Your task to perform on an android device: Add bose soundlink mini to the cart on target Image 0: 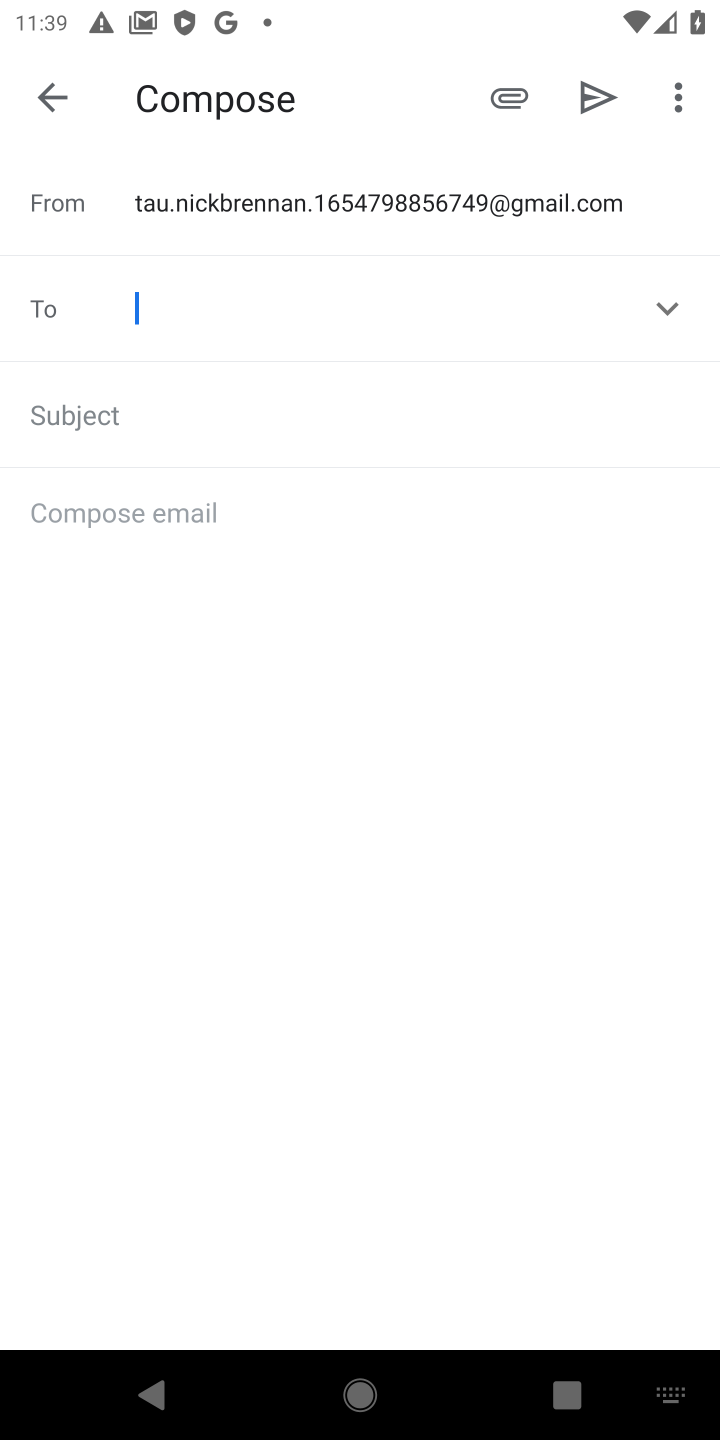
Step 0: press home button
Your task to perform on an android device: Add bose soundlink mini to the cart on target Image 1: 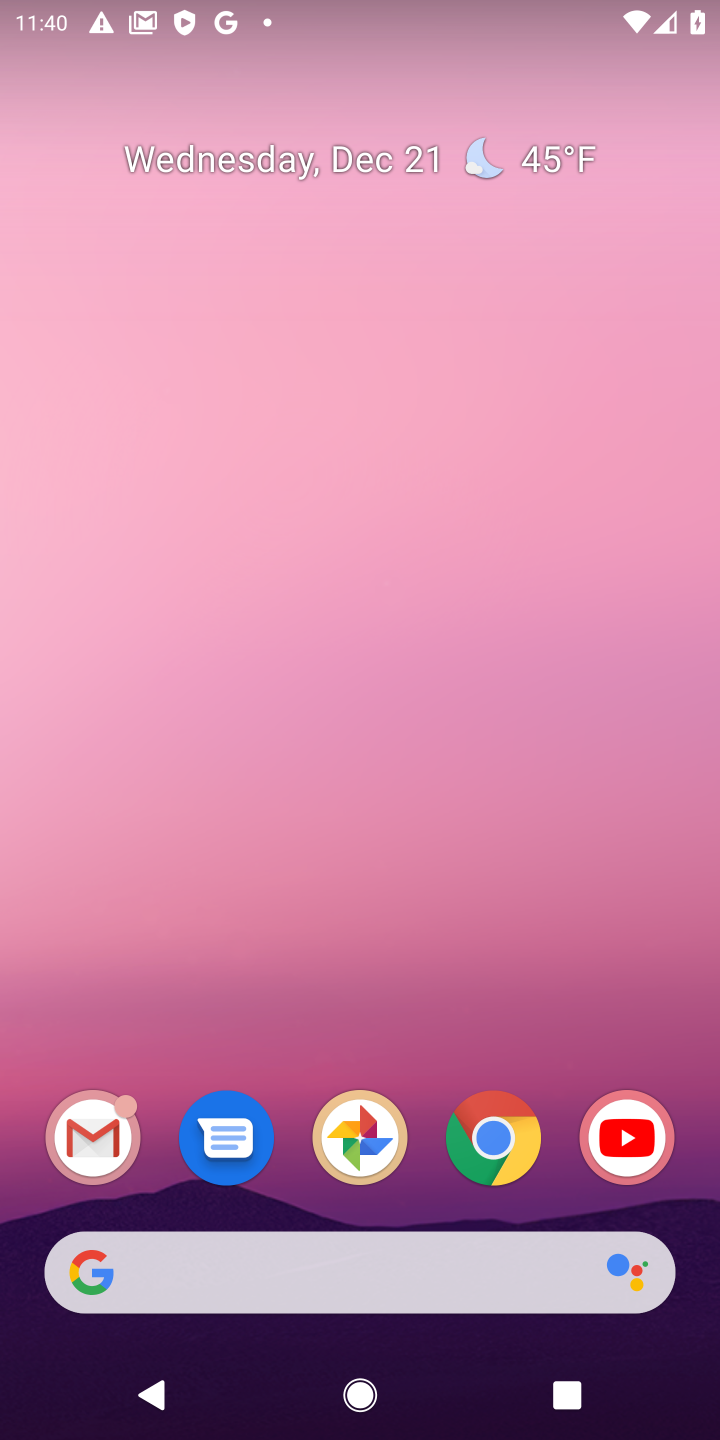
Step 1: click (483, 1149)
Your task to perform on an android device: Add bose soundlink mini to the cart on target Image 2: 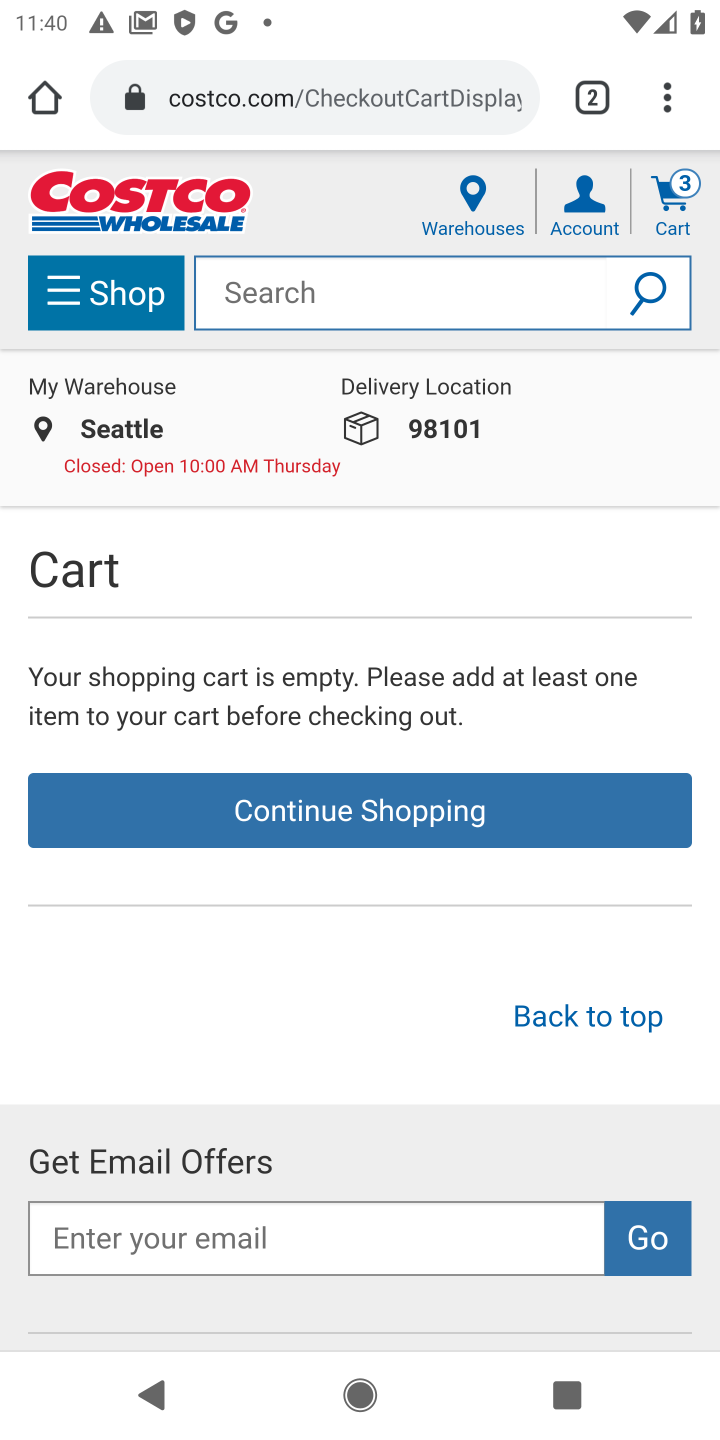
Step 2: click (321, 98)
Your task to perform on an android device: Add bose soundlink mini to the cart on target Image 3: 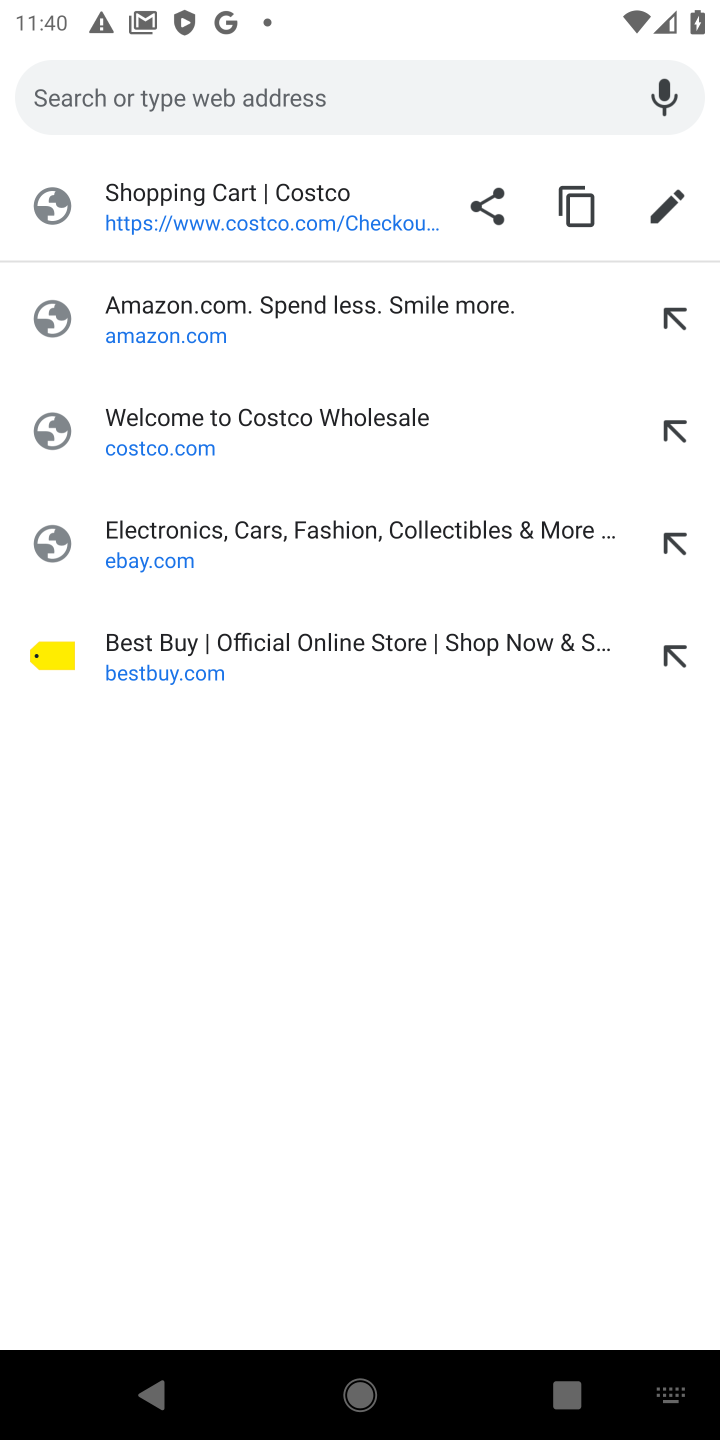
Step 3: type "target.com"
Your task to perform on an android device: Add bose soundlink mini to the cart on target Image 4: 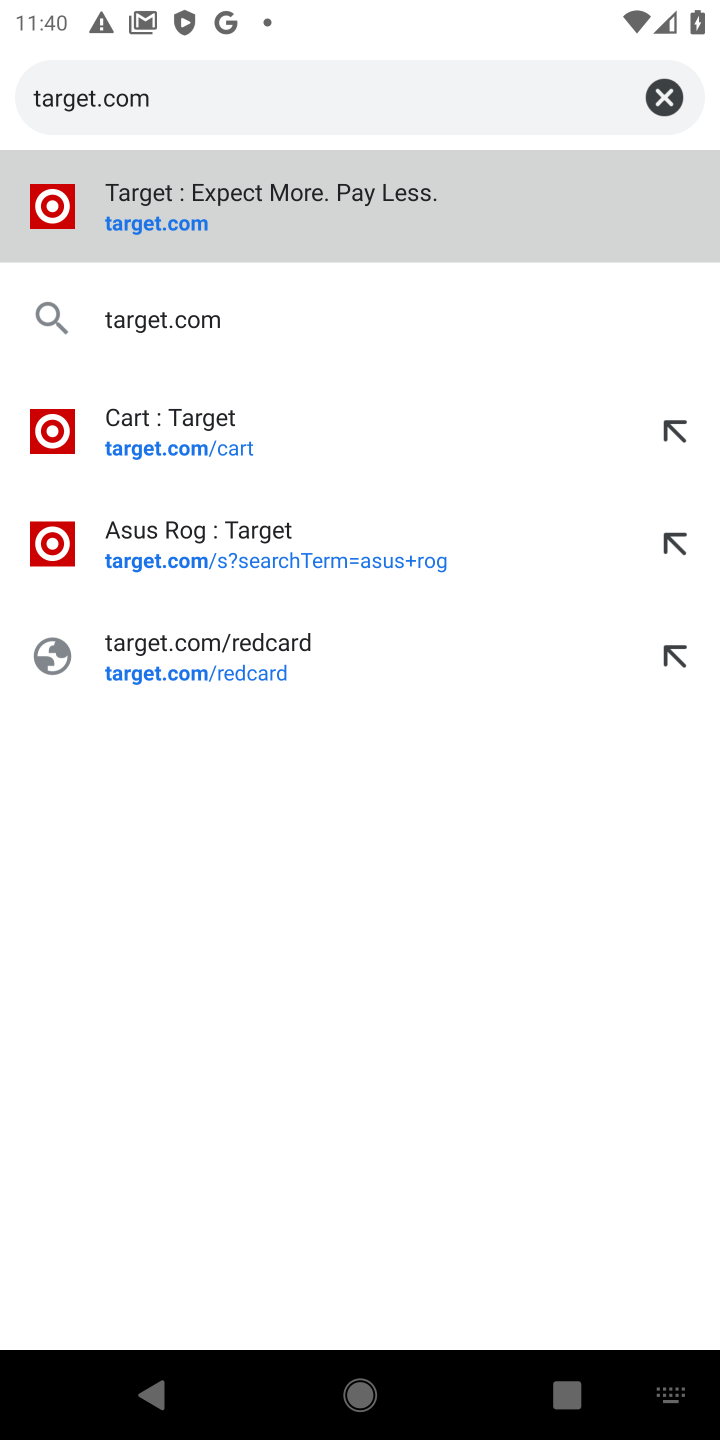
Step 4: click (114, 231)
Your task to perform on an android device: Add bose soundlink mini to the cart on target Image 5: 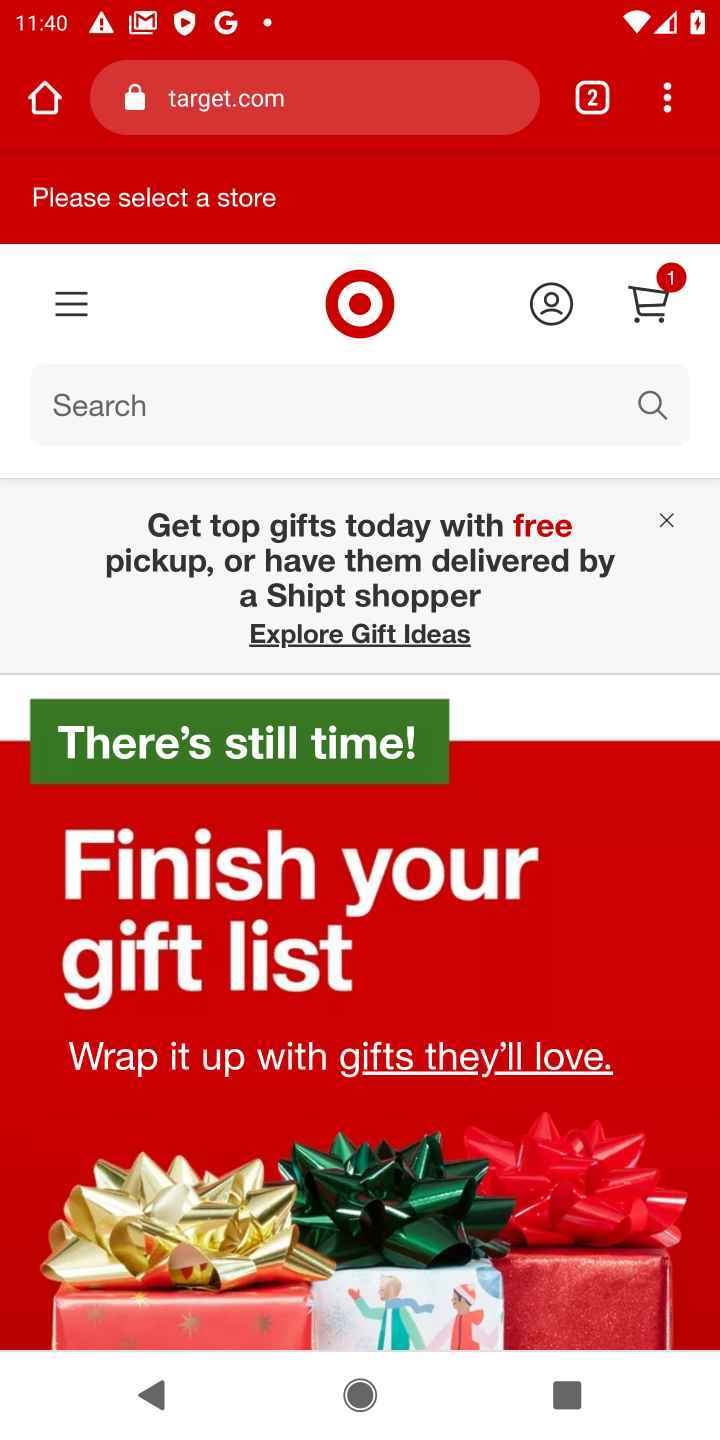
Step 5: click (92, 421)
Your task to perform on an android device: Add bose soundlink mini to the cart on target Image 6: 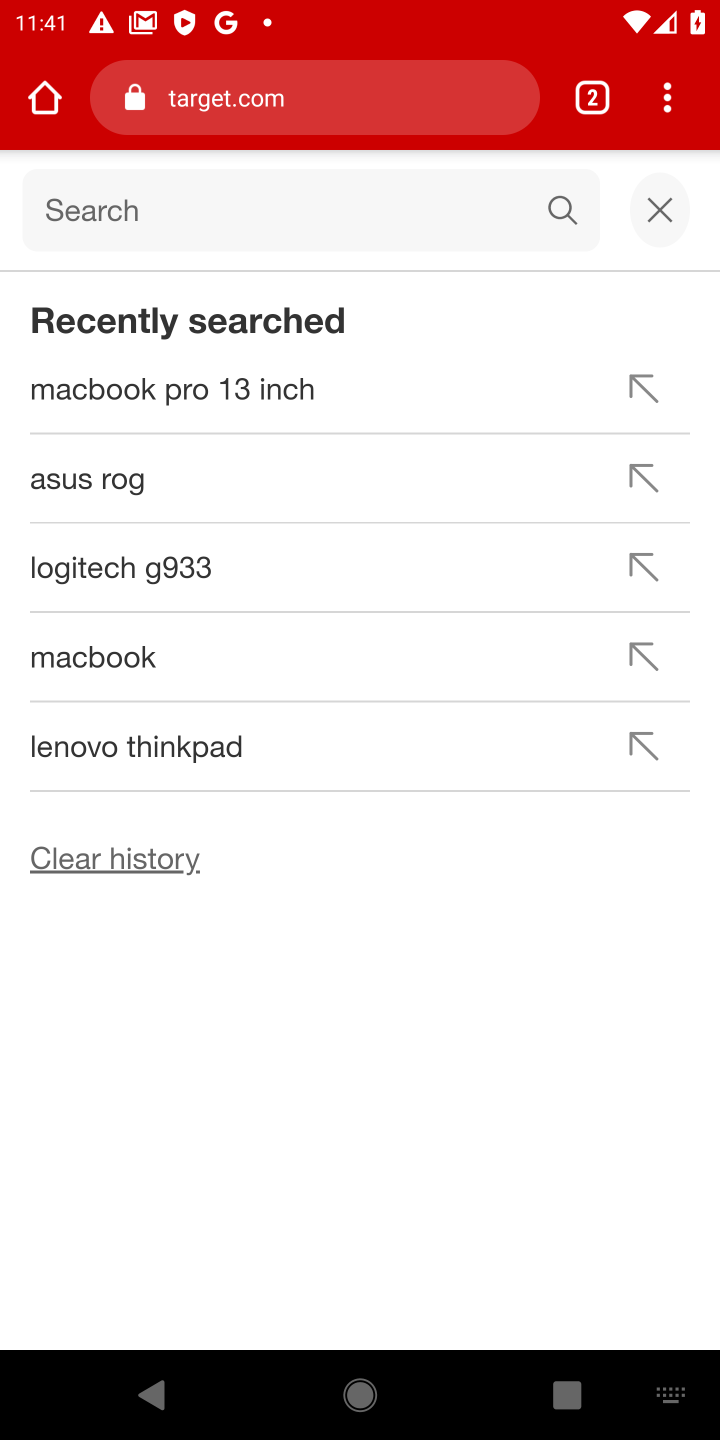
Step 6: type "bose soundlink mini"
Your task to perform on an android device: Add bose soundlink mini to the cart on target Image 7: 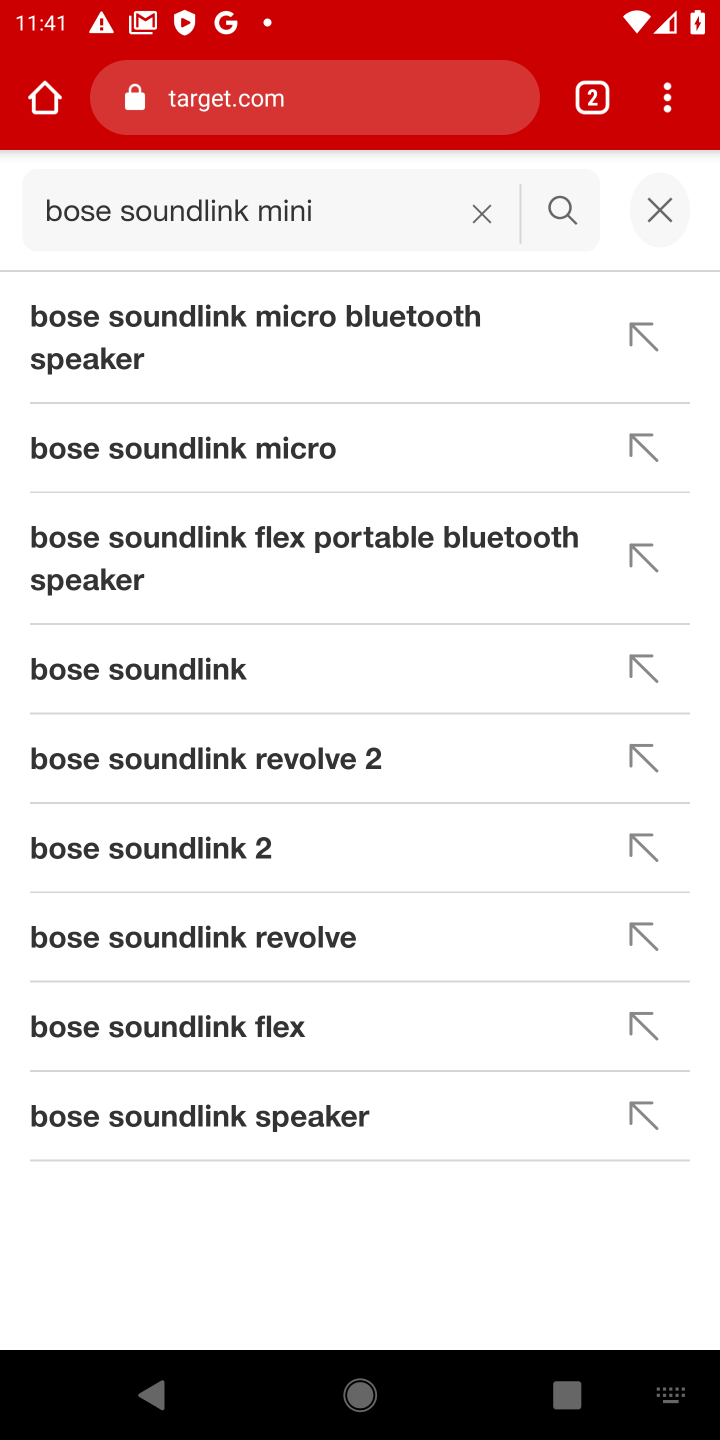
Step 7: click (566, 218)
Your task to perform on an android device: Add bose soundlink mini to the cart on target Image 8: 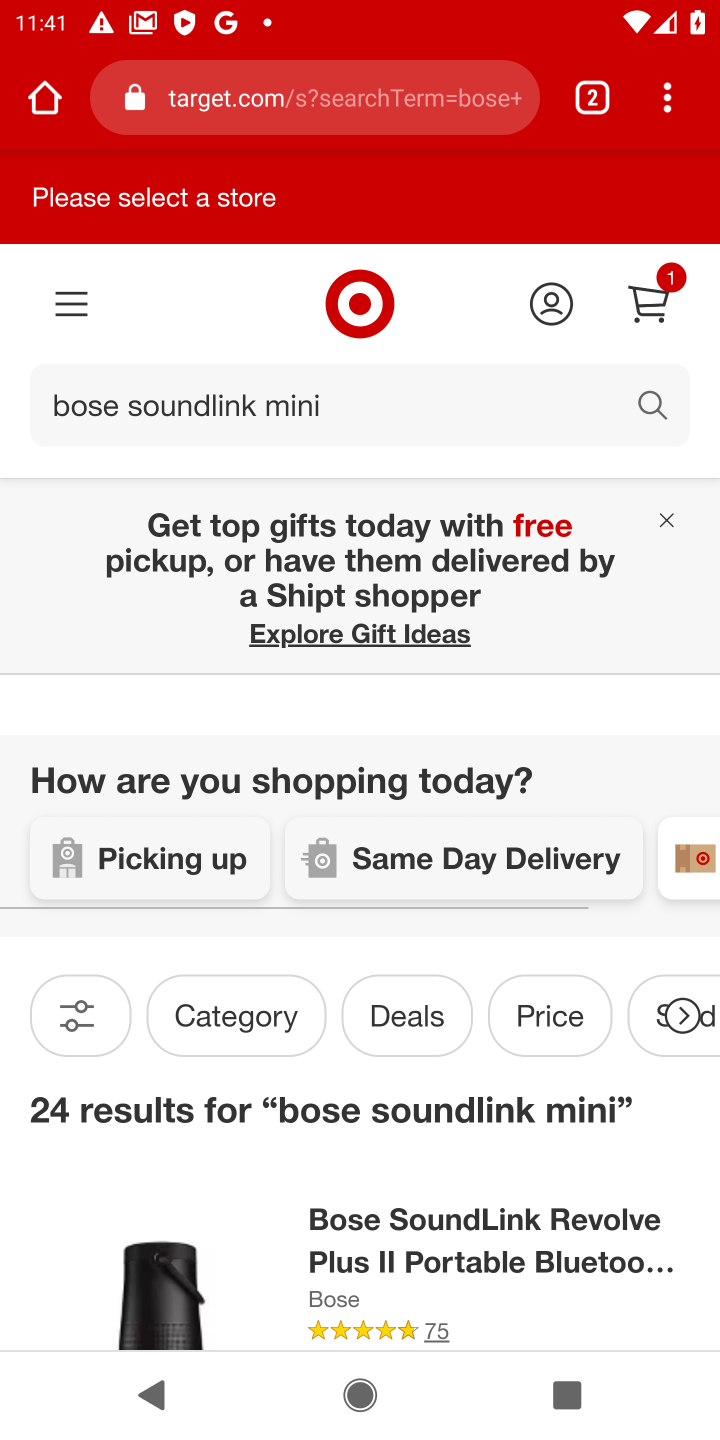
Step 8: task complete